Your task to perform on an android device: Go to battery settings Image 0: 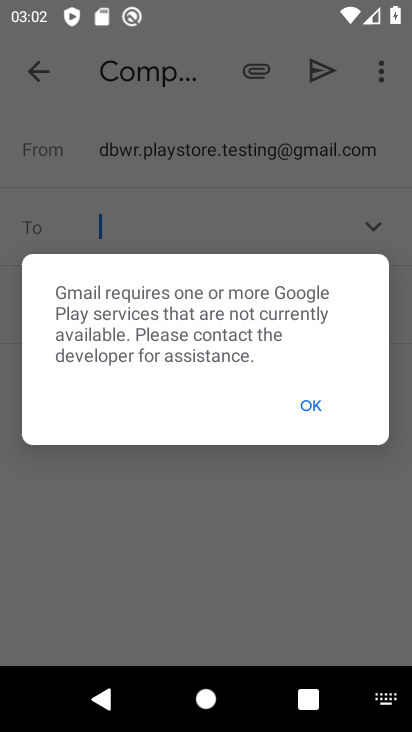
Step 0: click (307, 397)
Your task to perform on an android device: Go to battery settings Image 1: 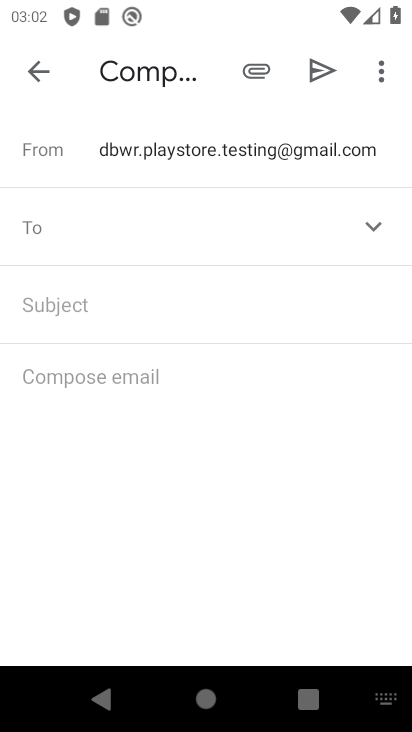
Step 1: press home button
Your task to perform on an android device: Go to battery settings Image 2: 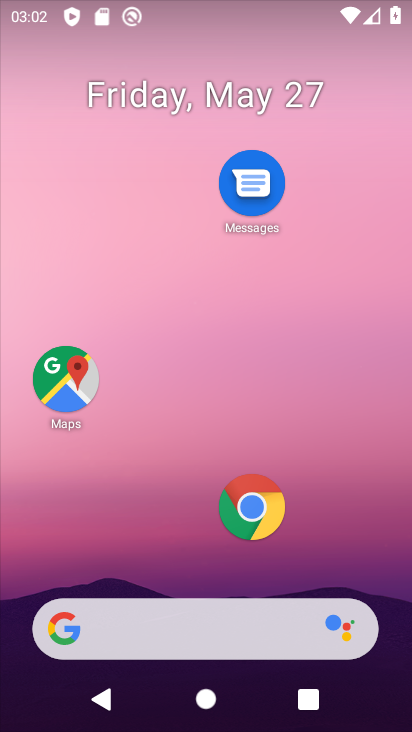
Step 2: drag from (199, 513) to (190, 16)
Your task to perform on an android device: Go to battery settings Image 3: 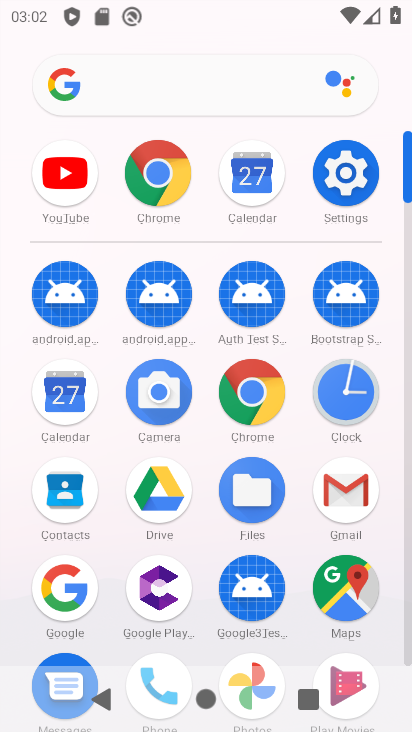
Step 3: click (347, 178)
Your task to perform on an android device: Go to battery settings Image 4: 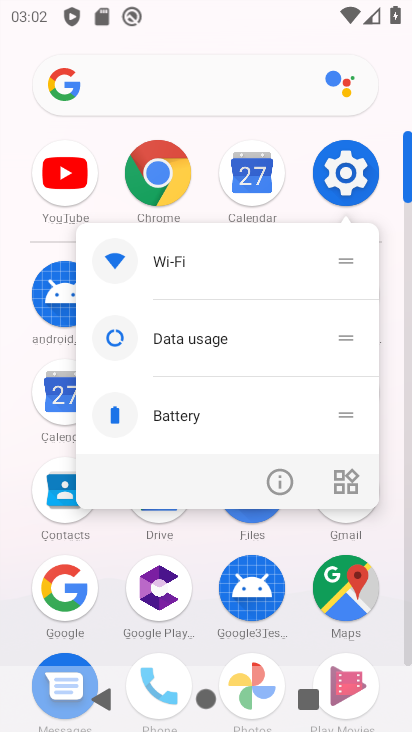
Step 4: click (283, 494)
Your task to perform on an android device: Go to battery settings Image 5: 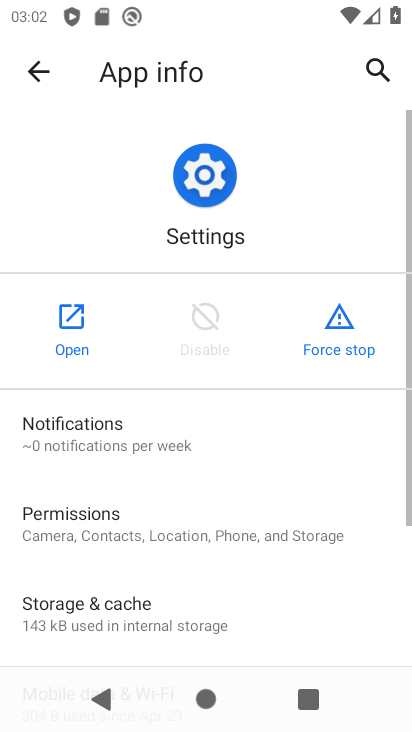
Step 5: click (72, 315)
Your task to perform on an android device: Go to battery settings Image 6: 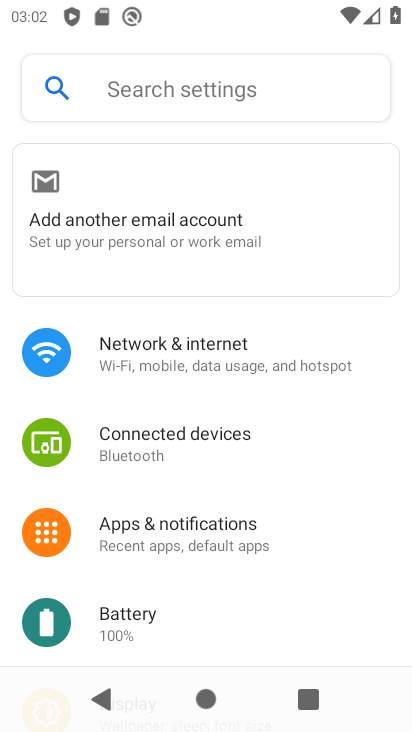
Step 6: click (154, 623)
Your task to perform on an android device: Go to battery settings Image 7: 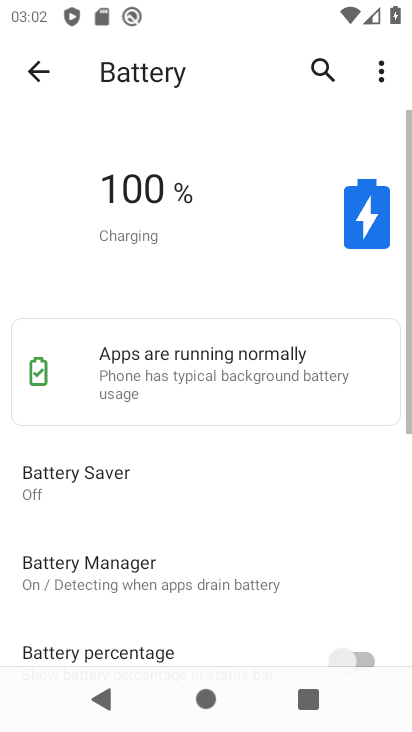
Step 7: task complete